Your task to perform on an android device: What is the recent news? Image 0: 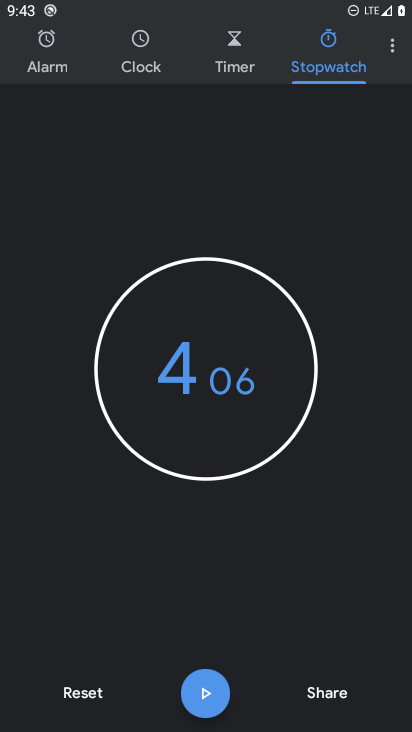
Step 0: press home button
Your task to perform on an android device: What is the recent news? Image 1: 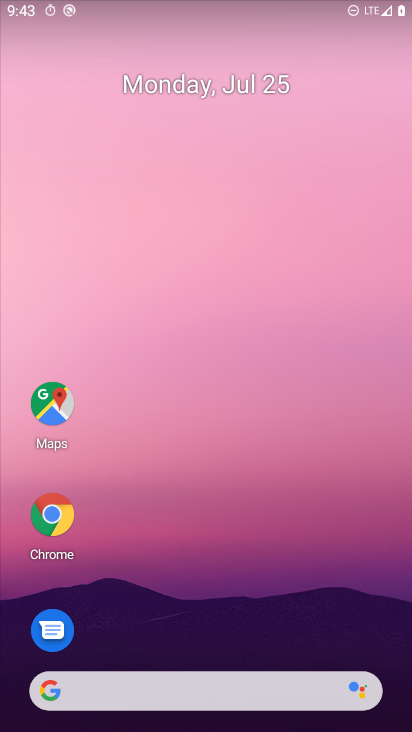
Step 1: click (126, 681)
Your task to perform on an android device: What is the recent news? Image 2: 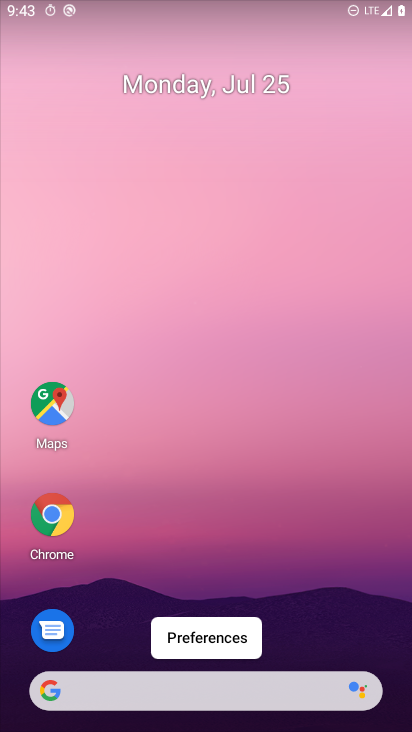
Step 2: click (76, 685)
Your task to perform on an android device: What is the recent news? Image 3: 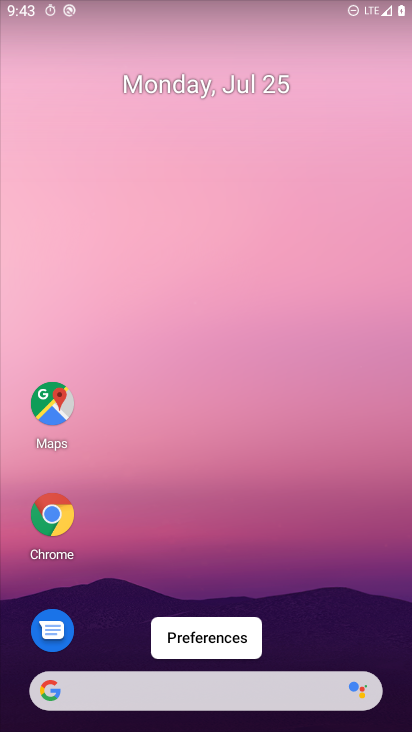
Step 3: click (90, 677)
Your task to perform on an android device: What is the recent news? Image 4: 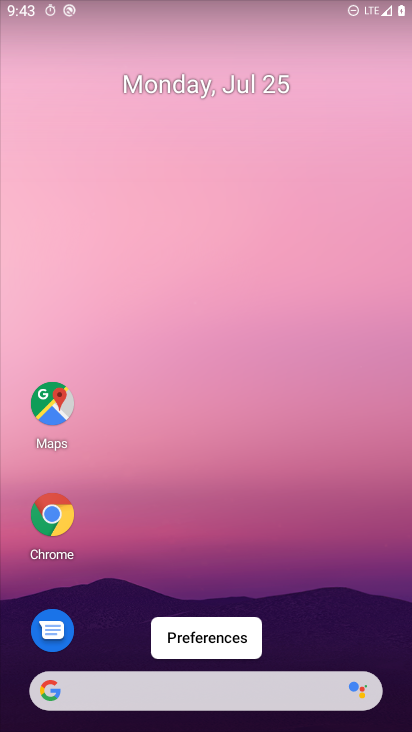
Step 4: click (95, 693)
Your task to perform on an android device: What is the recent news? Image 5: 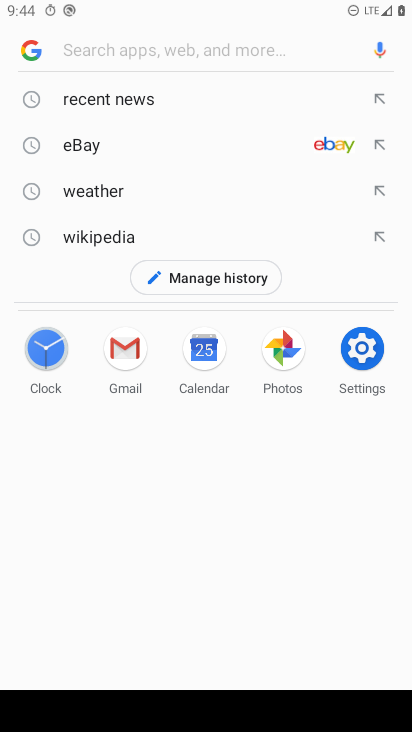
Step 5: type "What is the recent news?"
Your task to perform on an android device: What is the recent news? Image 6: 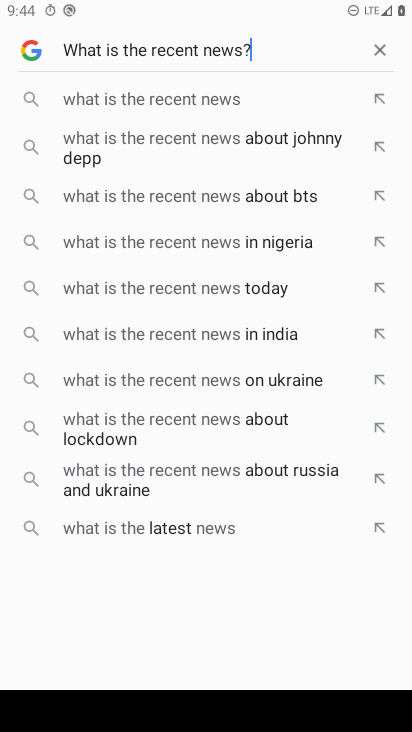
Step 6: type ""
Your task to perform on an android device: What is the recent news? Image 7: 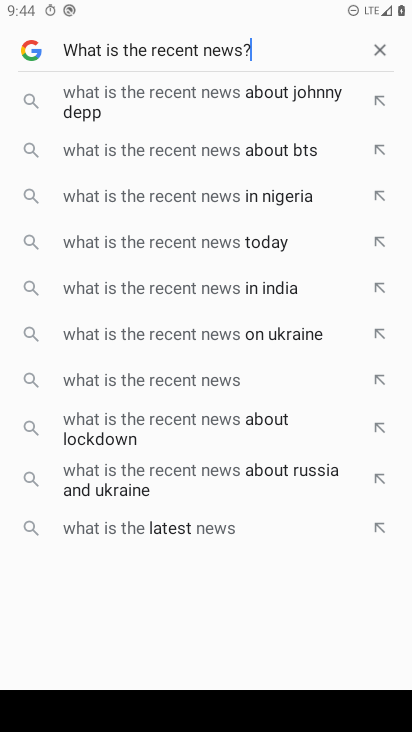
Step 7: type ""
Your task to perform on an android device: What is the recent news? Image 8: 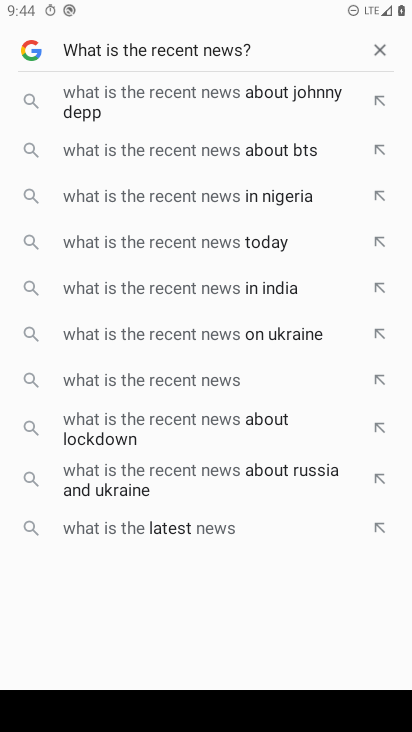
Step 8: type ""
Your task to perform on an android device: What is the recent news? Image 9: 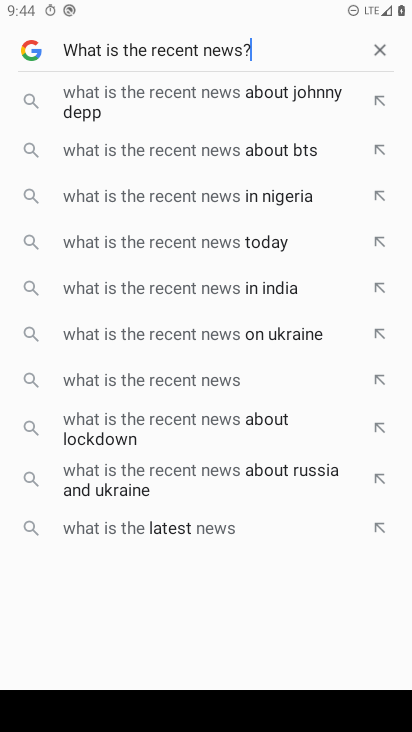
Step 9: task complete